Your task to perform on an android device: Set the phone to "Do not disturb". Image 0: 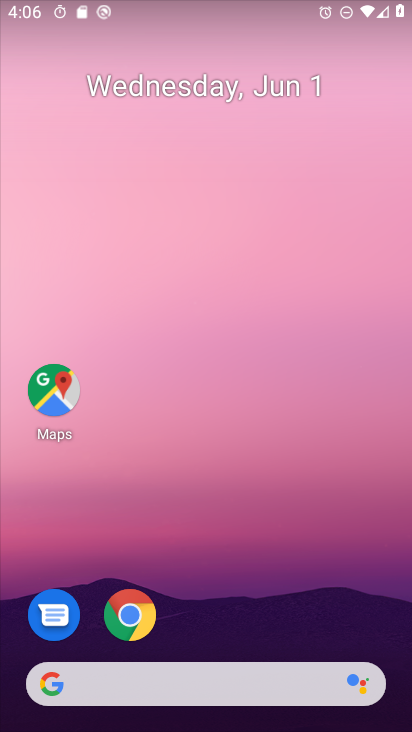
Step 0: drag from (134, 702) to (181, 94)
Your task to perform on an android device: Set the phone to "Do not disturb". Image 1: 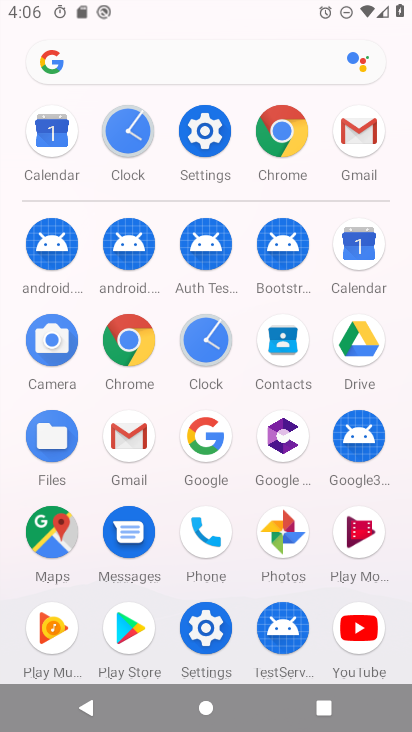
Step 1: click (176, 135)
Your task to perform on an android device: Set the phone to "Do not disturb". Image 2: 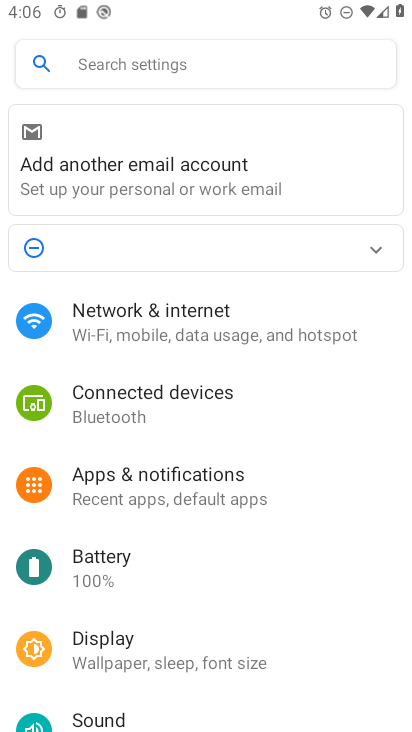
Step 2: drag from (128, 720) to (179, 313)
Your task to perform on an android device: Set the phone to "Do not disturb". Image 3: 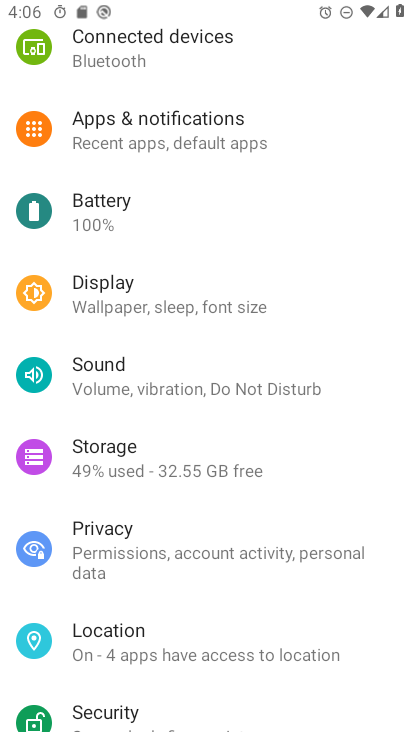
Step 3: click (193, 403)
Your task to perform on an android device: Set the phone to "Do not disturb". Image 4: 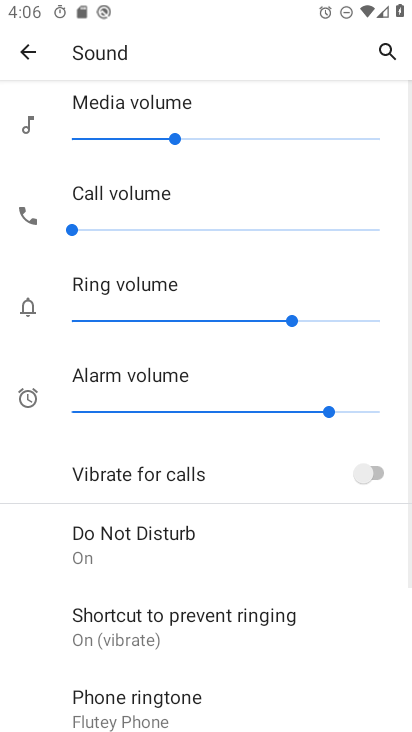
Step 4: click (177, 550)
Your task to perform on an android device: Set the phone to "Do not disturb". Image 5: 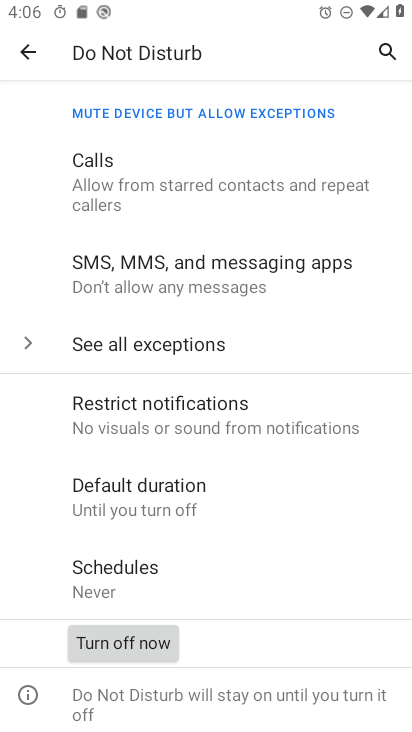
Step 5: task complete